Your task to perform on an android device: Add razer blade to the cart on walmart.com Image 0: 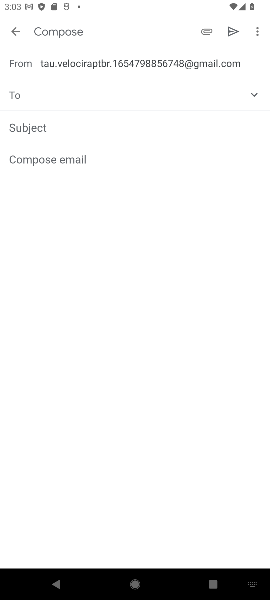
Step 0: press home button
Your task to perform on an android device: Add razer blade to the cart on walmart.com Image 1: 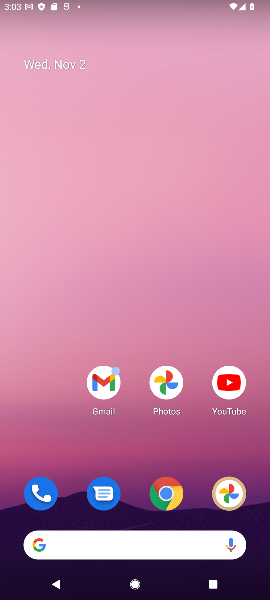
Step 1: click (169, 492)
Your task to perform on an android device: Add razer blade to the cart on walmart.com Image 2: 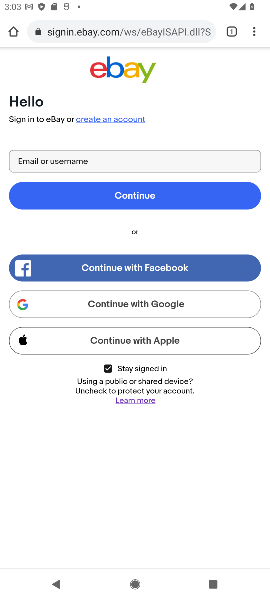
Step 2: click (167, 30)
Your task to perform on an android device: Add razer blade to the cart on walmart.com Image 3: 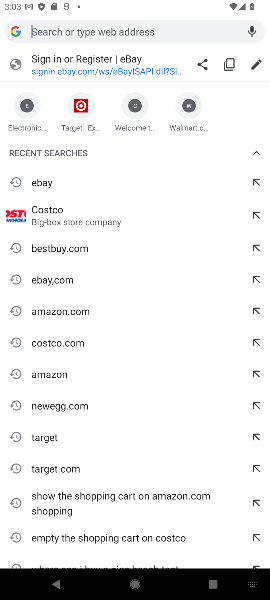
Step 3: type "walmart.com"
Your task to perform on an android device: Add razer blade to the cart on walmart.com Image 4: 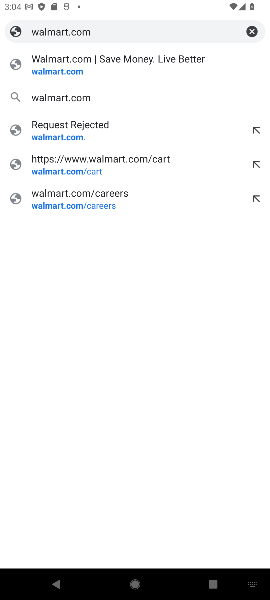
Step 4: click (118, 97)
Your task to perform on an android device: Add razer blade to the cart on walmart.com Image 5: 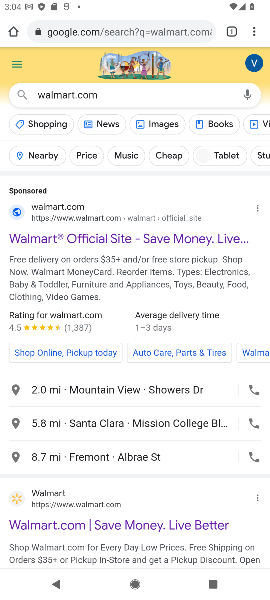
Step 5: click (61, 209)
Your task to perform on an android device: Add razer blade to the cart on walmart.com Image 6: 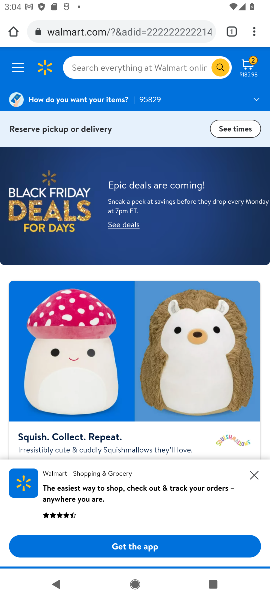
Step 6: click (180, 61)
Your task to perform on an android device: Add razer blade to the cart on walmart.com Image 7: 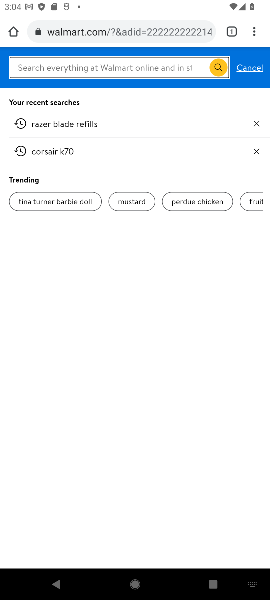
Step 7: type "razer blade"
Your task to perform on an android device: Add razer blade to the cart on walmart.com Image 8: 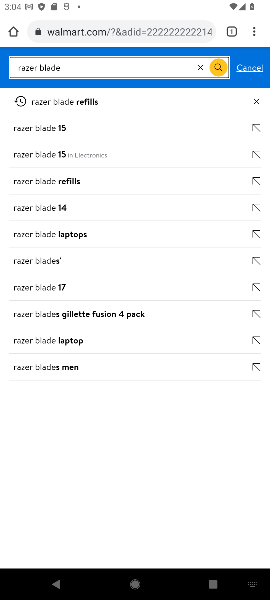
Step 8: click (42, 260)
Your task to perform on an android device: Add razer blade to the cart on walmart.com Image 9: 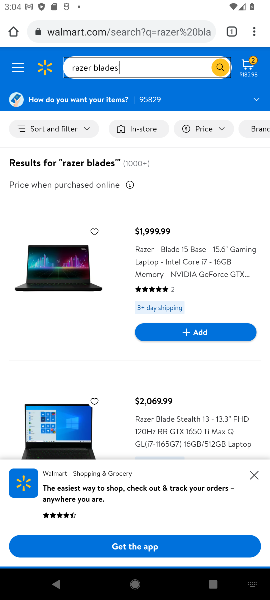
Step 9: click (39, 282)
Your task to perform on an android device: Add razer blade to the cart on walmart.com Image 10: 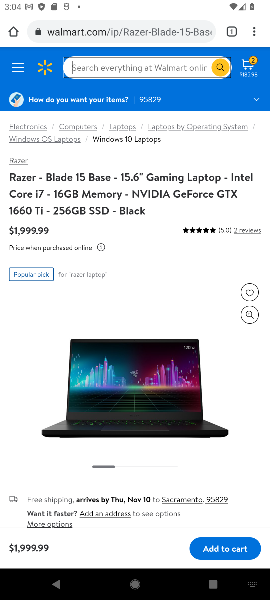
Step 10: click (243, 554)
Your task to perform on an android device: Add razer blade to the cart on walmart.com Image 11: 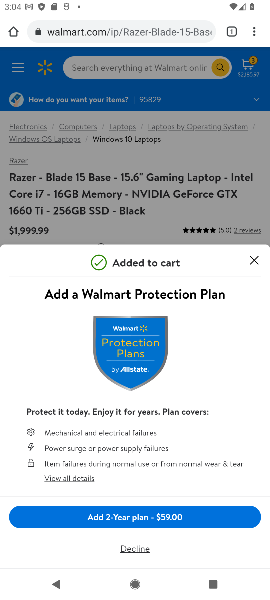
Step 11: click (253, 258)
Your task to perform on an android device: Add razer blade to the cart on walmart.com Image 12: 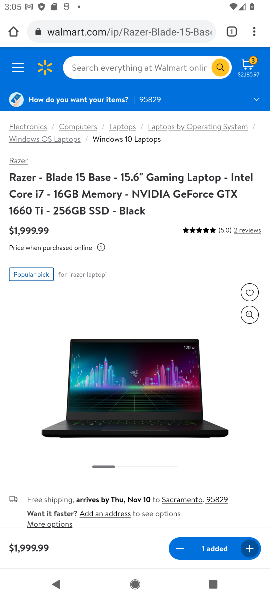
Step 12: task complete